Your task to perform on an android device: uninstall "Grab" Image 0: 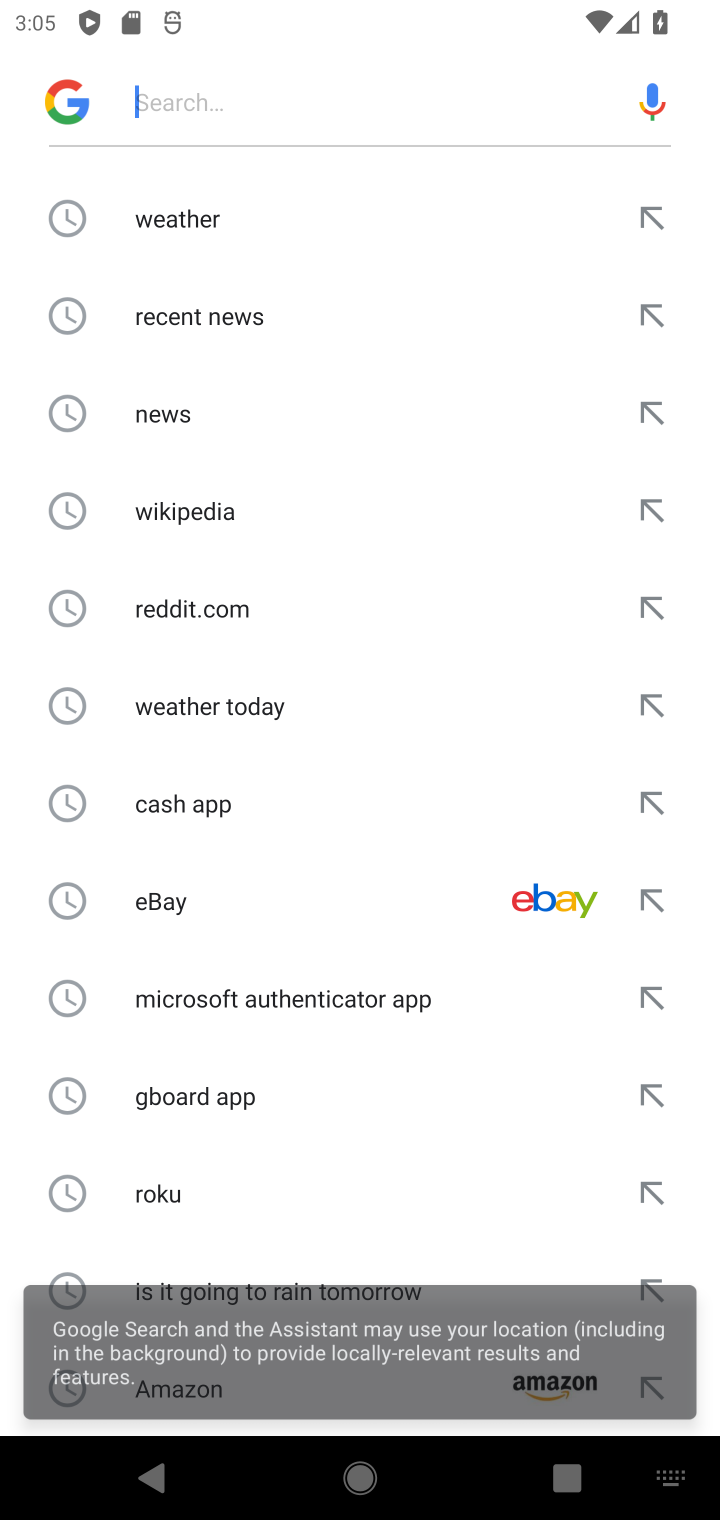
Step 0: press home button
Your task to perform on an android device: uninstall "Grab" Image 1: 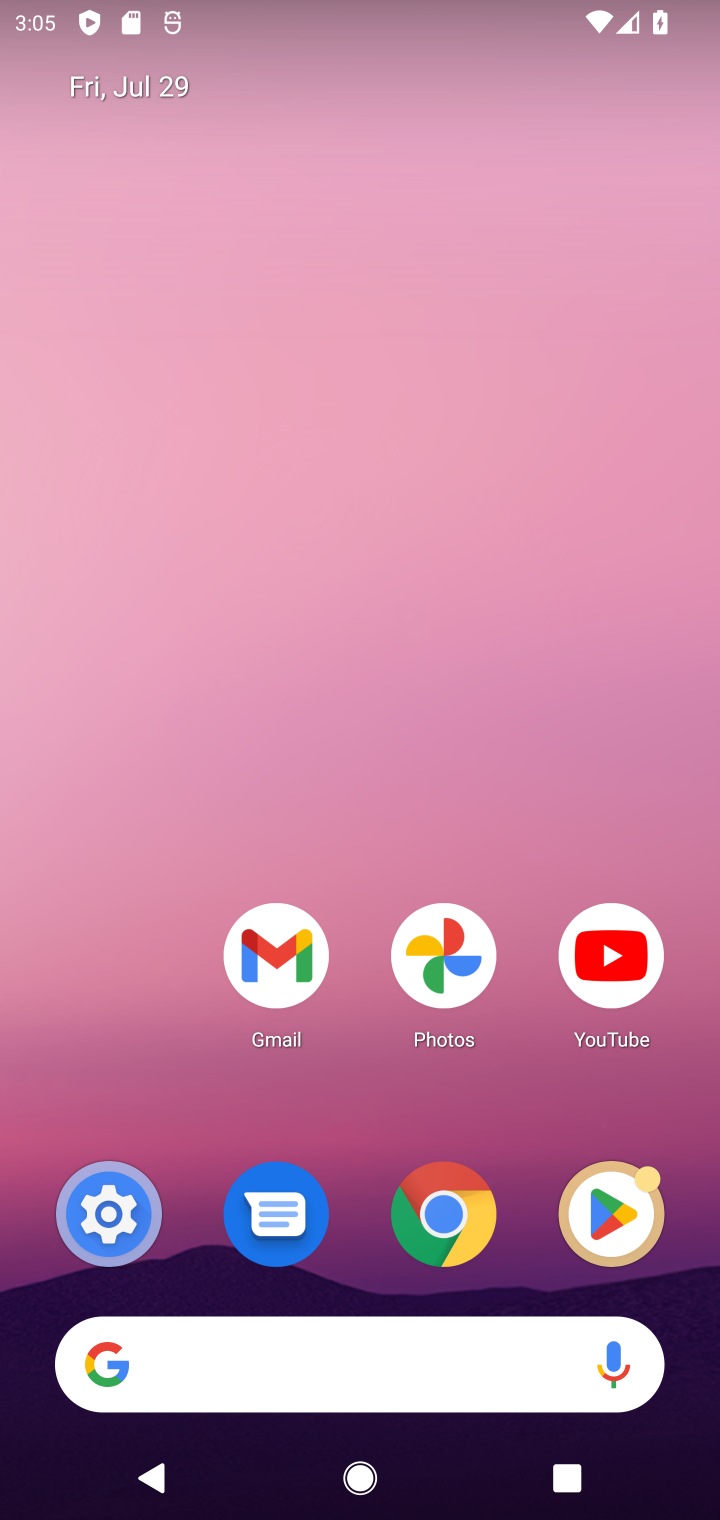
Step 1: click (622, 1199)
Your task to perform on an android device: uninstall "Grab" Image 2: 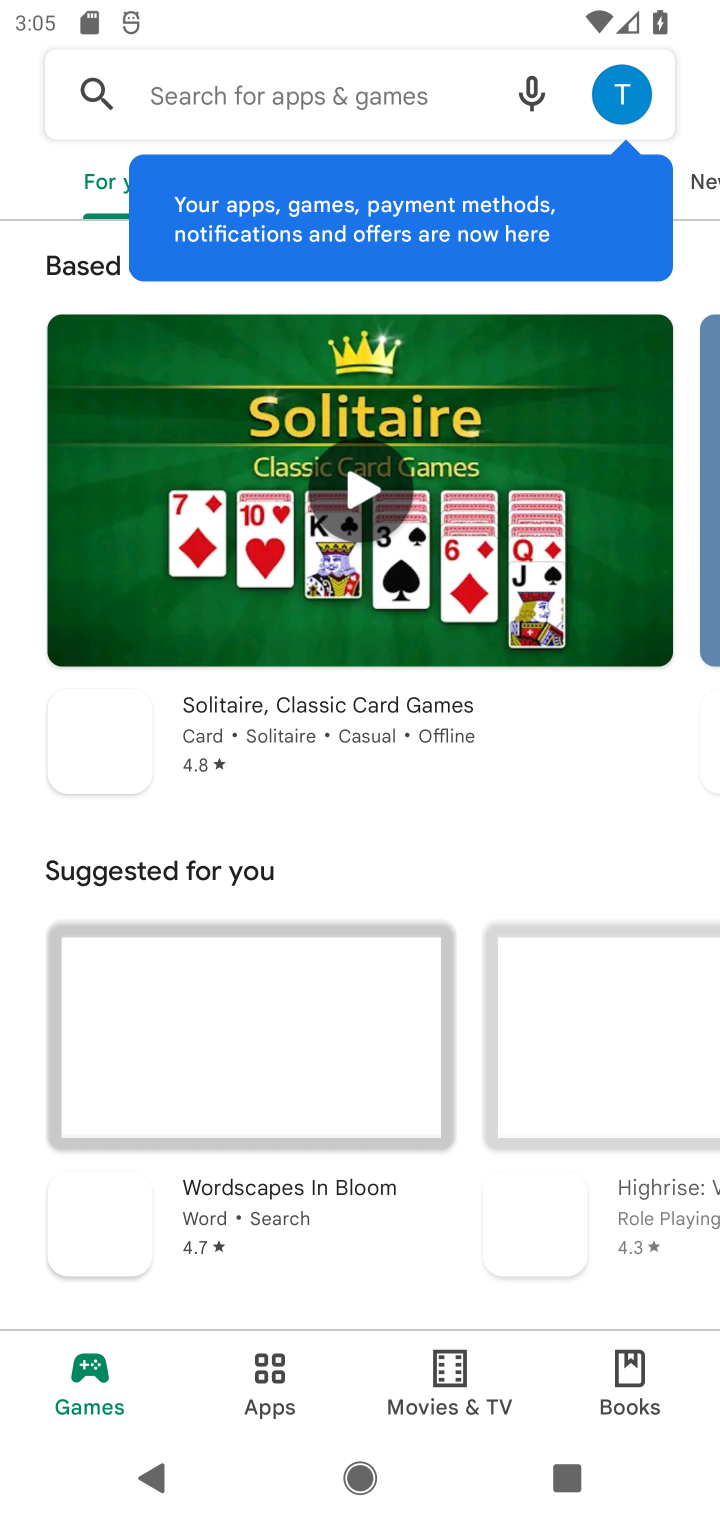
Step 2: click (374, 89)
Your task to perform on an android device: uninstall "Grab" Image 3: 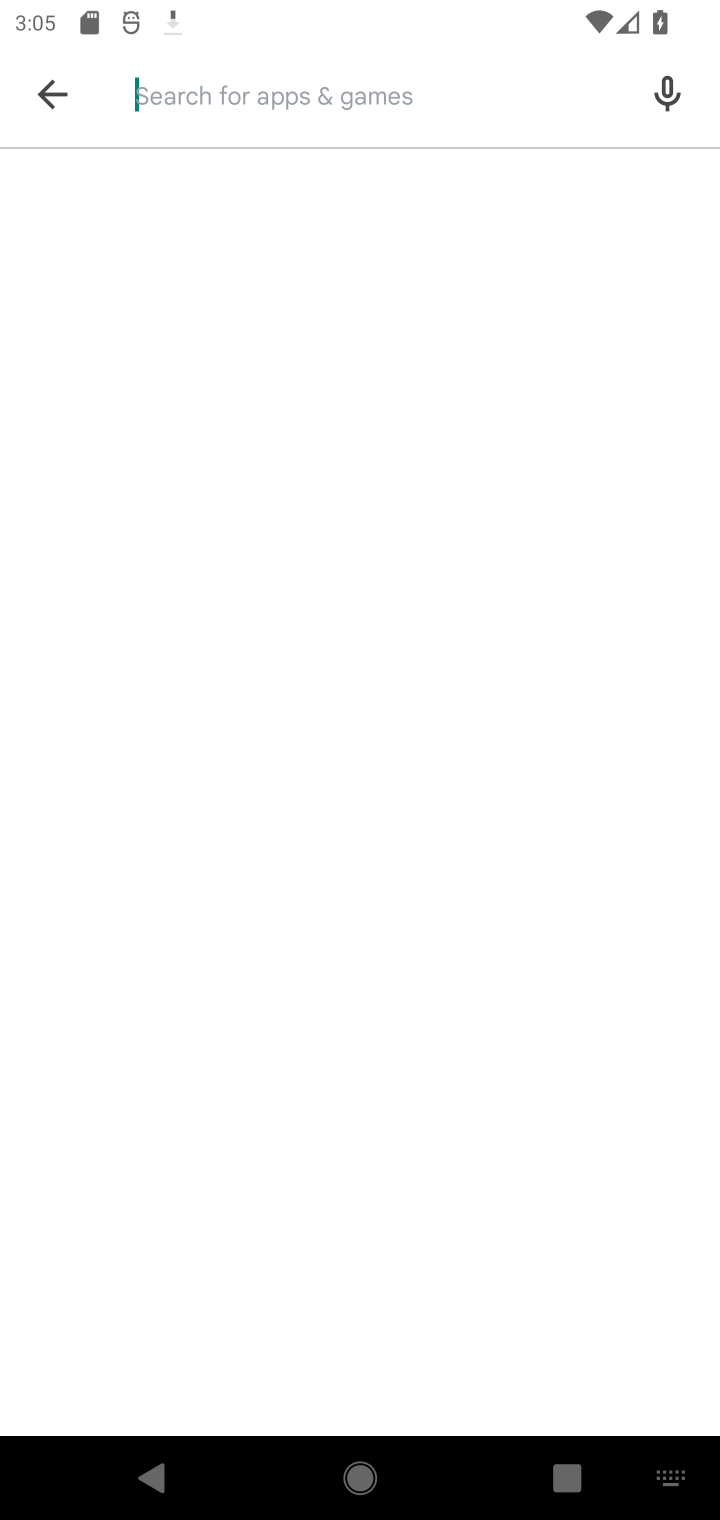
Step 3: type "Grab"
Your task to perform on an android device: uninstall "Grab" Image 4: 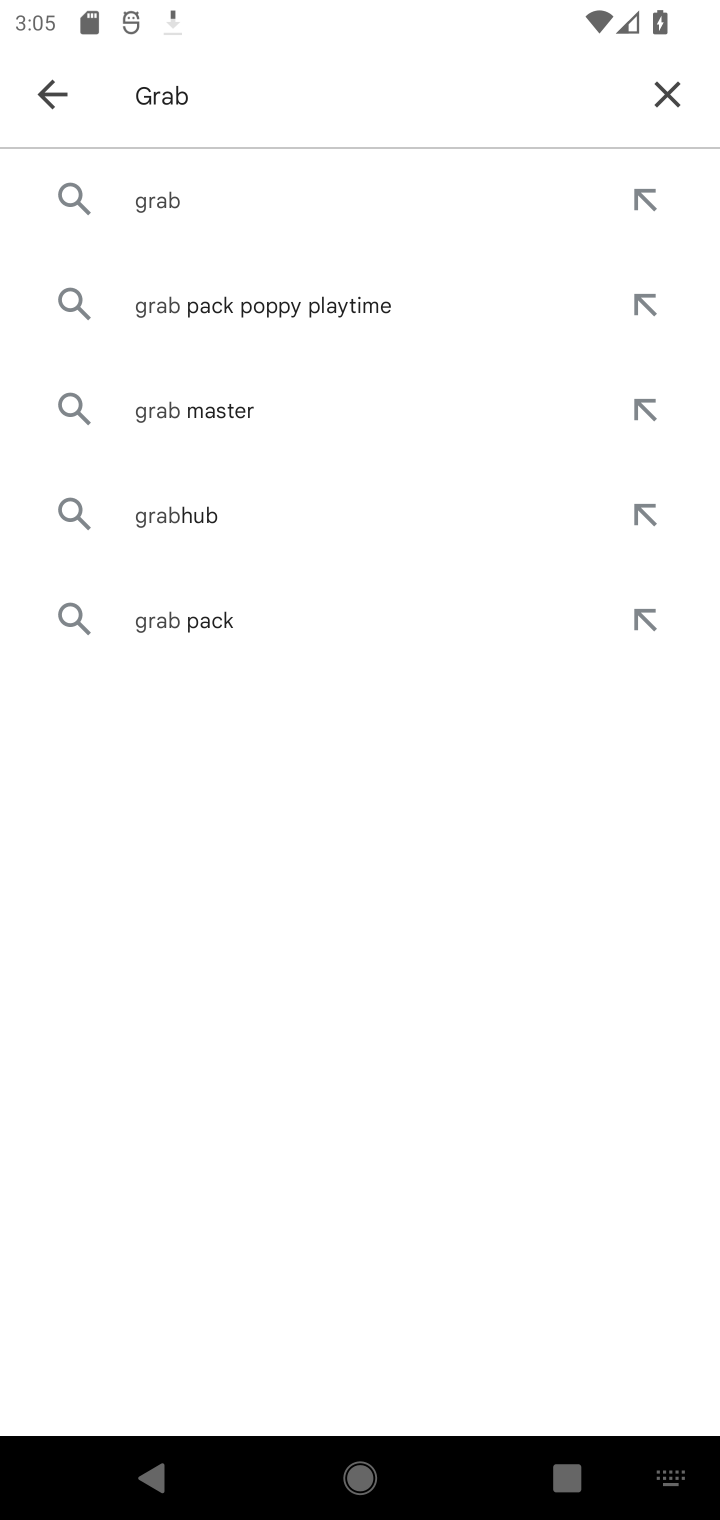
Step 4: click (243, 181)
Your task to perform on an android device: uninstall "Grab" Image 5: 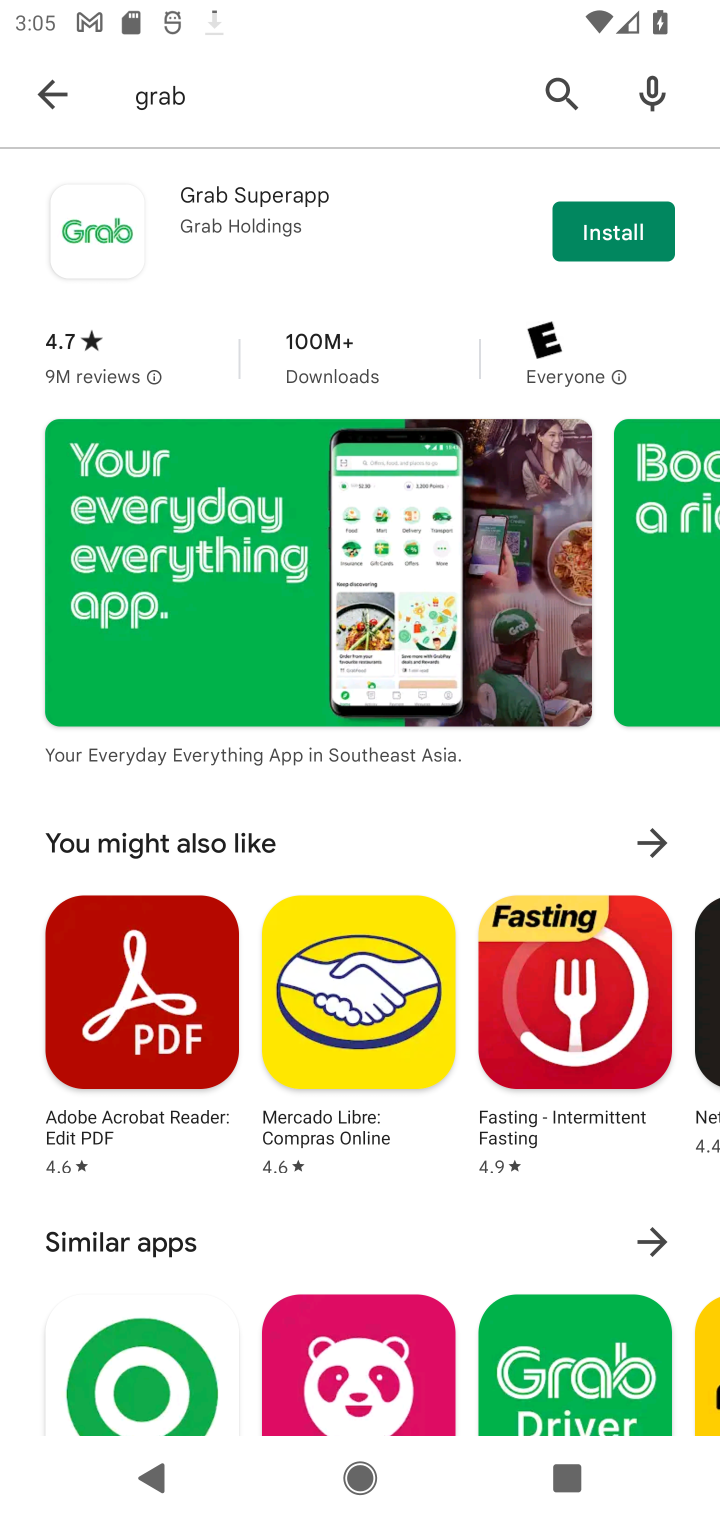
Step 5: task complete